Your task to perform on an android device: Go to Wikipedia Image 0: 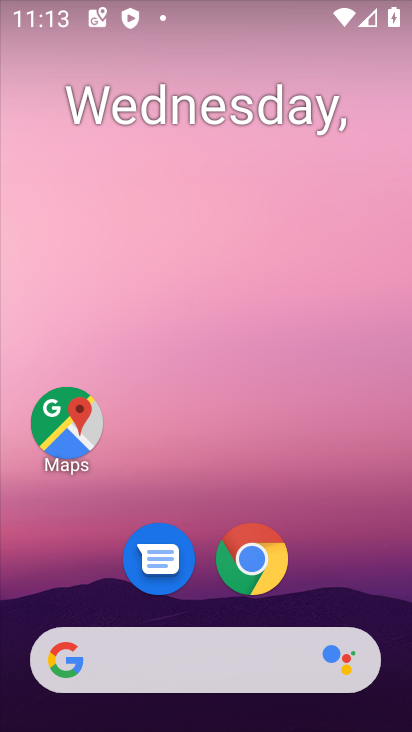
Step 0: click (249, 558)
Your task to perform on an android device: Go to Wikipedia Image 1: 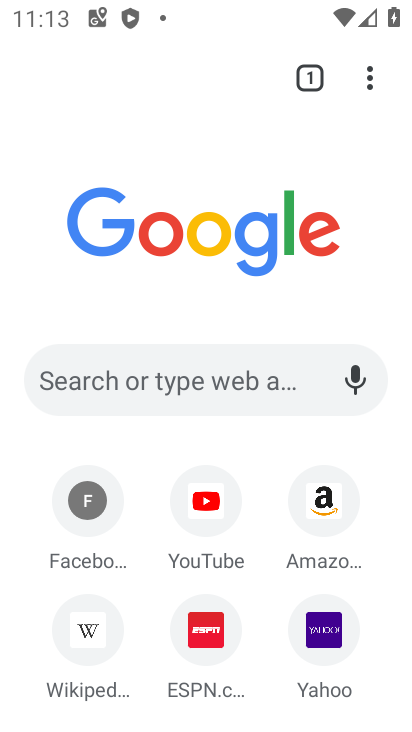
Step 1: click (97, 633)
Your task to perform on an android device: Go to Wikipedia Image 2: 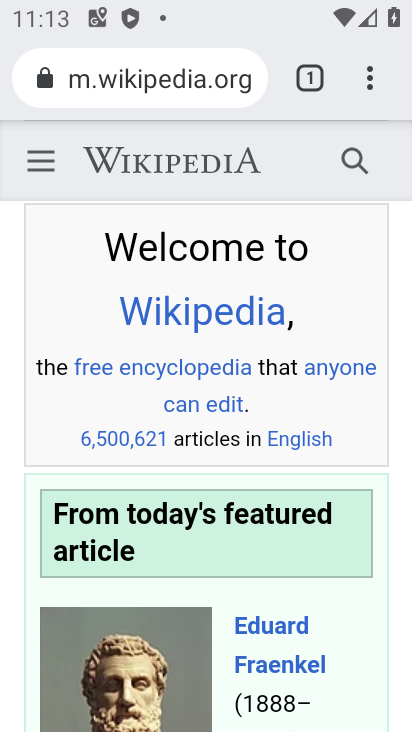
Step 2: task complete